Your task to perform on an android device: delete the emails in spam in the gmail app Image 0: 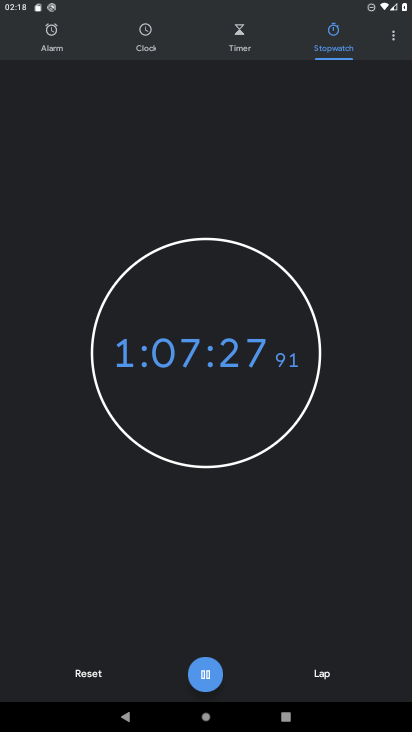
Step 0: press home button
Your task to perform on an android device: delete the emails in spam in the gmail app Image 1: 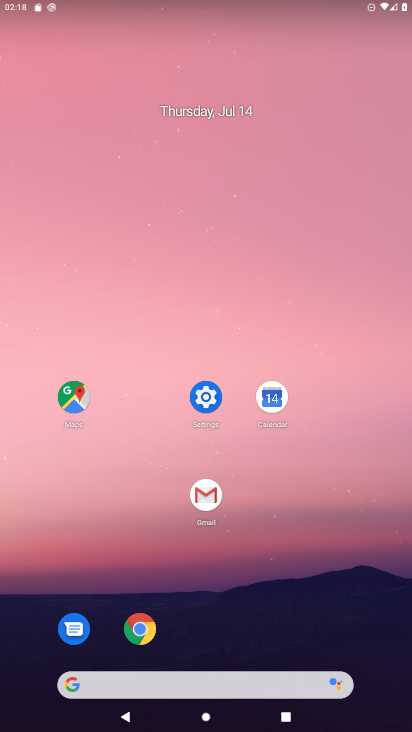
Step 1: click (206, 490)
Your task to perform on an android device: delete the emails in spam in the gmail app Image 2: 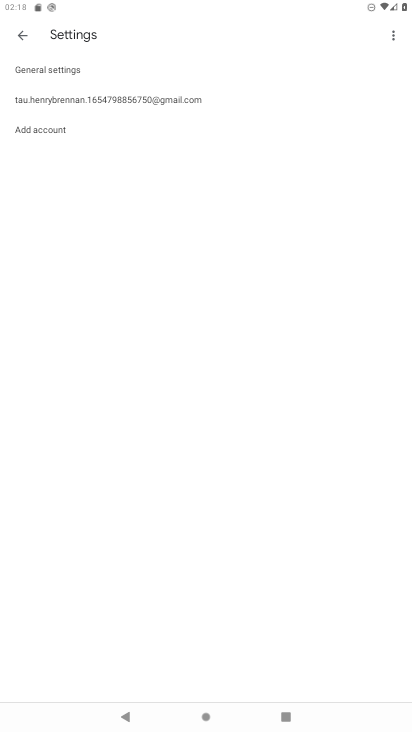
Step 2: click (12, 36)
Your task to perform on an android device: delete the emails in spam in the gmail app Image 3: 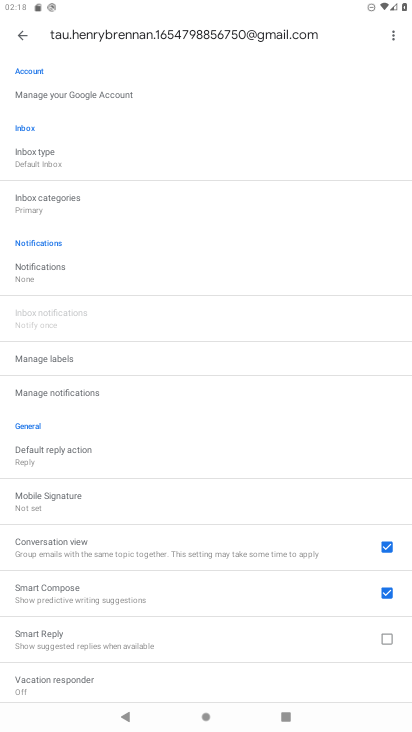
Step 3: click (24, 38)
Your task to perform on an android device: delete the emails in spam in the gmail app Image 4: 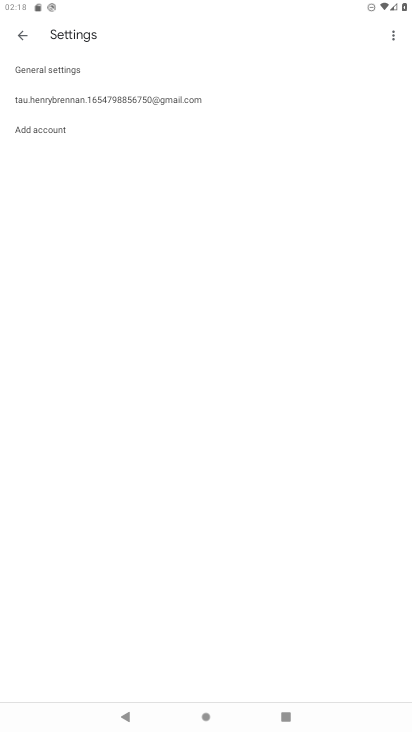
Step 4: click (24, 38)
Your task to perform on an android device: delete the emails in spam in the gmail app Image 5: 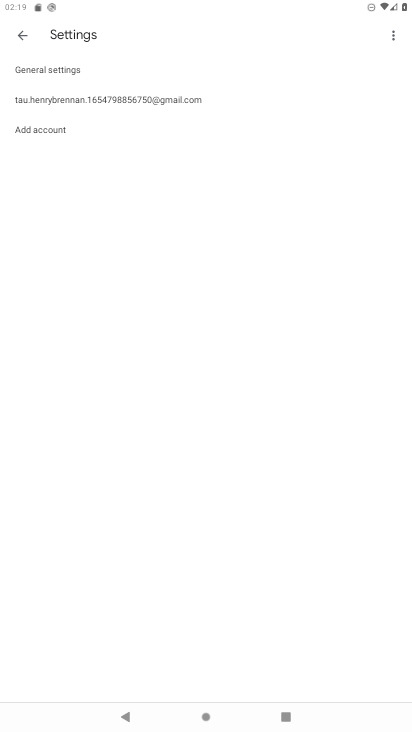
Step 5: click (24, 38)
Your task to perform on an android device: delete the emails in spam in the gmail app Image 6: 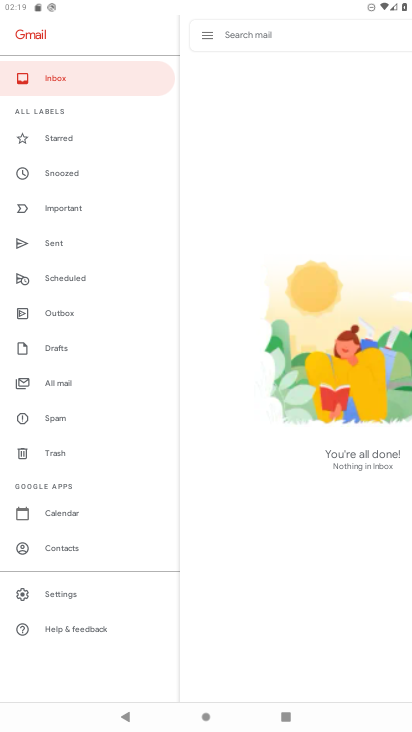
Step 6: click (50, 418)
Your task to perform on an android device: delete the emails in spam in the gmail app Image 7: 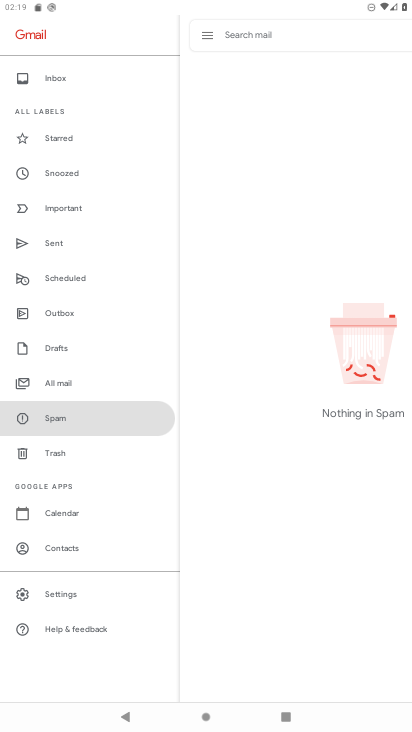
Step 7: task complete